Your task to perform on an android device: delete a single message in the gmail app Image 0: 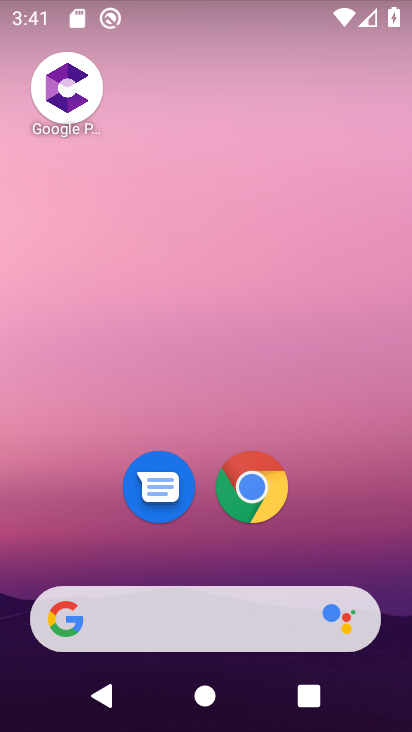
Step 0: drag from (203, 551) to (302, 58)
Your task to perform on an android device: delete a single message in the gmail app Image 1: 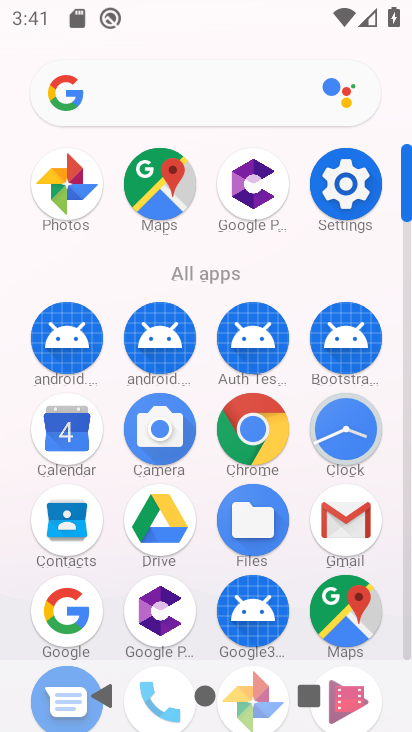
Step 1: click (349, 514)
Your task to perform on an android device: delete a single message in the gmail app Image 2: 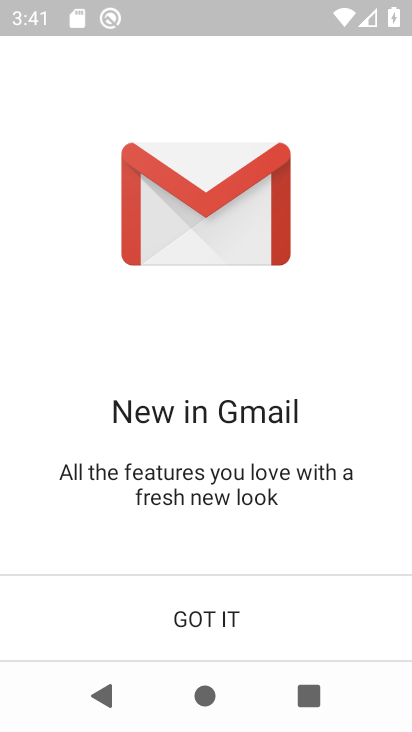
Step 2: click (202, 613)
Your task to perform on an android device: delete a single message in the gmail app Image 3: 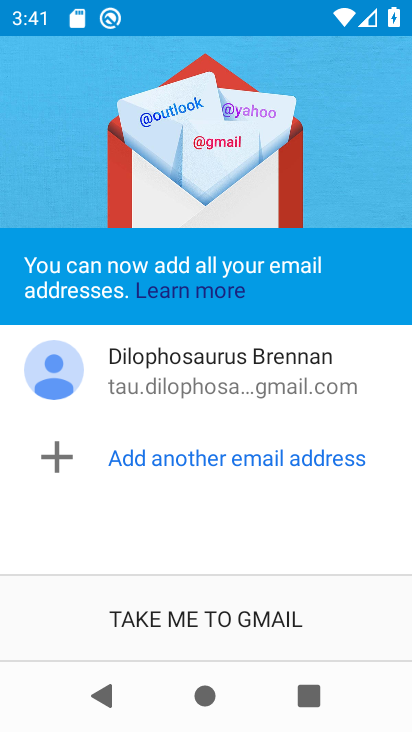
Step 3: click (202, 614)
Your task to perform on an android device: delete a single message in the gmail app Image 4: 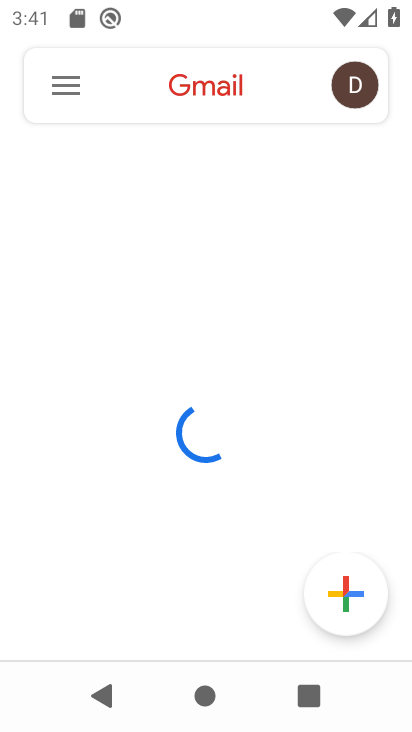
Step 4: click (66, 84)
Your task to perform on an android device: delete a single message in the gmail app Image 5: 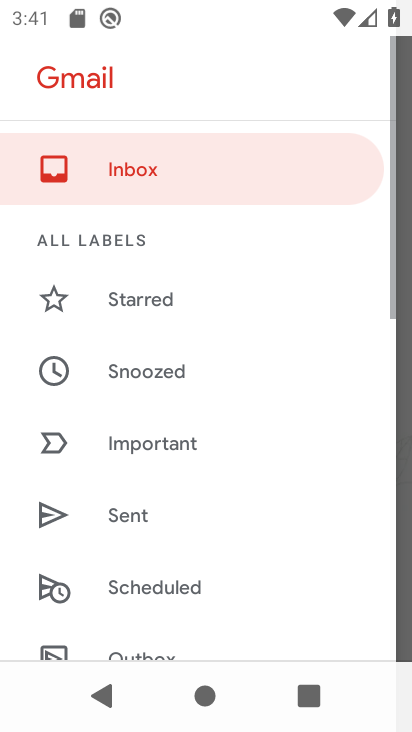
Step 5: drag from (184, 607) to (278, 106)
Your task to perform on an android device: delete a single message in the gmail app Image 6: 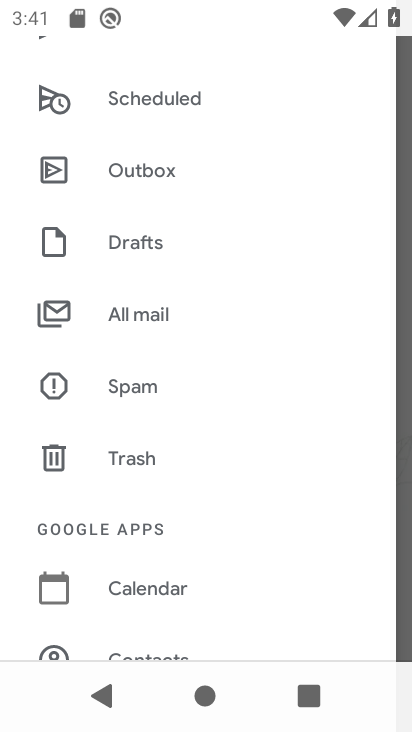
Step 6: click (147, 302)
Your task to perform on an android device: delete a single message in the gmail app Image 7: 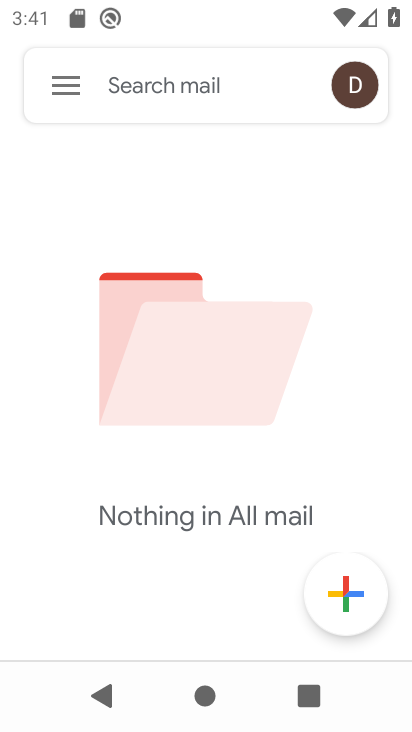
Step 7: task complete